Your task to perform on an android device: open chrome privacy settings Image 0: 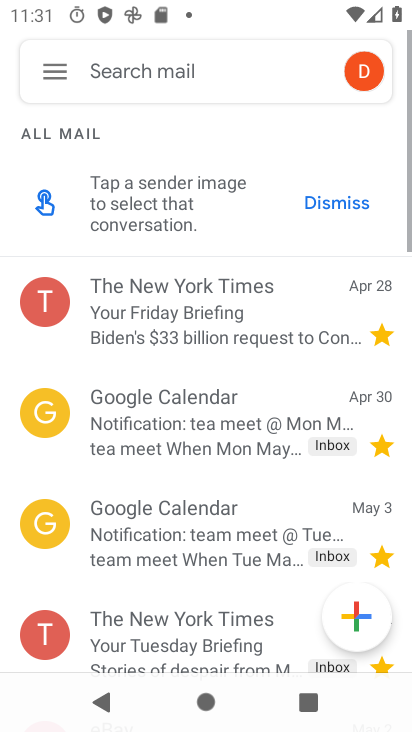
Step 0: press home button
Your task to perform on an android device: open chrome privacy settings Image 1: 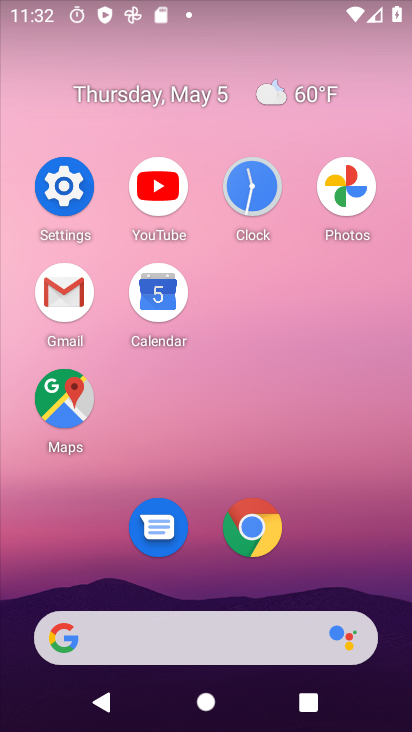
Step 1: click (267, 516)
Your task to perform on an android device: open chrome privacy settings Image 2: 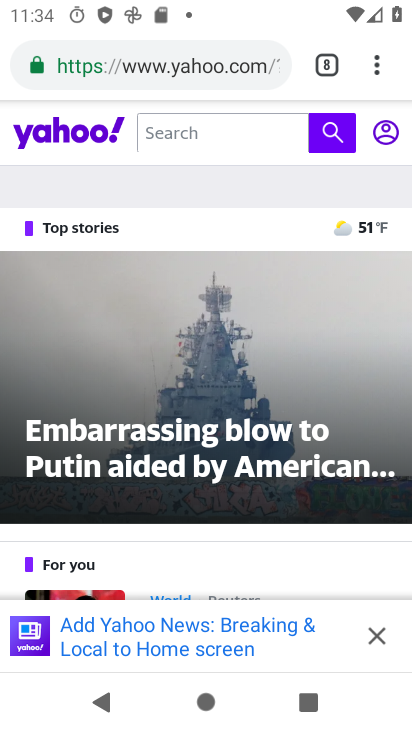
Step 2: click (375, 68)
Your task to perform on an android device: open chrome privacy settings Image 3: 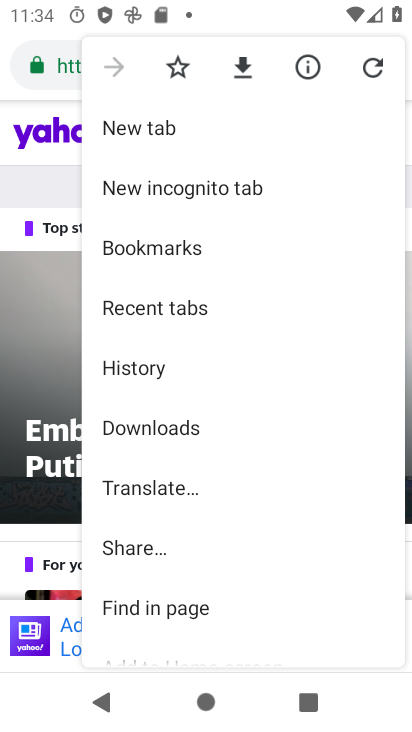
Step 3: drag from (255, 469) to (265, 218)
Your task to perform on an android device: open chrome privacy settings Image 4: 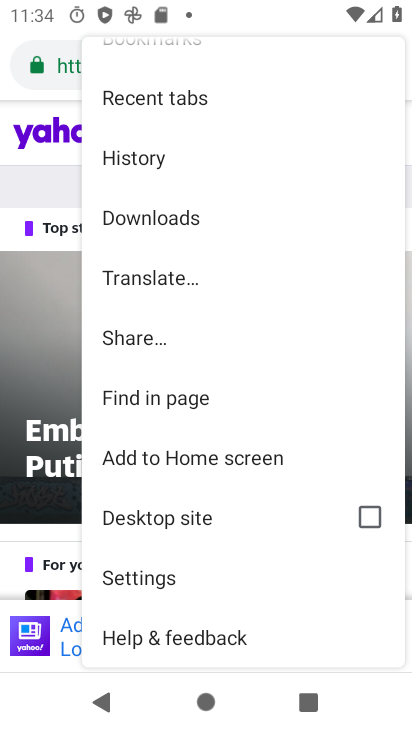
Step 4: click (213, 573)
Your task to perform on an android device: open chrome privacy settings Image 5: 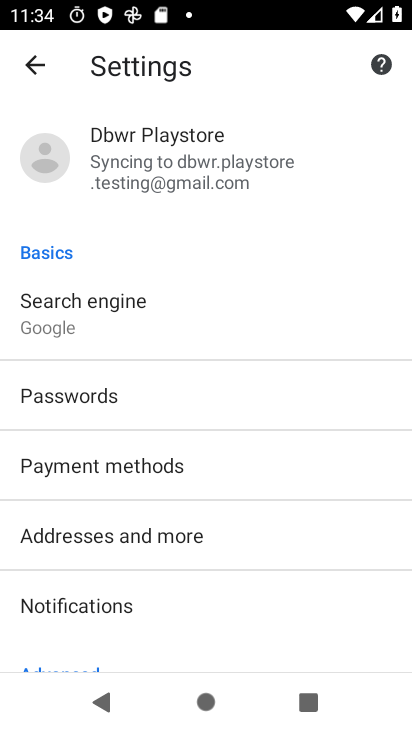
Step 5: drag from (213, 572) to (208, 184)
Your task to perform on an android device: open chrome privacy settings Image 6: 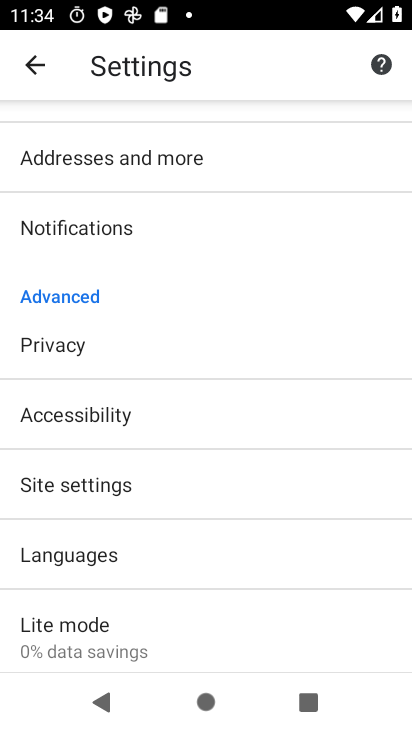
Step 6: click (155, 361)
Your task to perform on an android device: open chrome privacy settings Image 7: 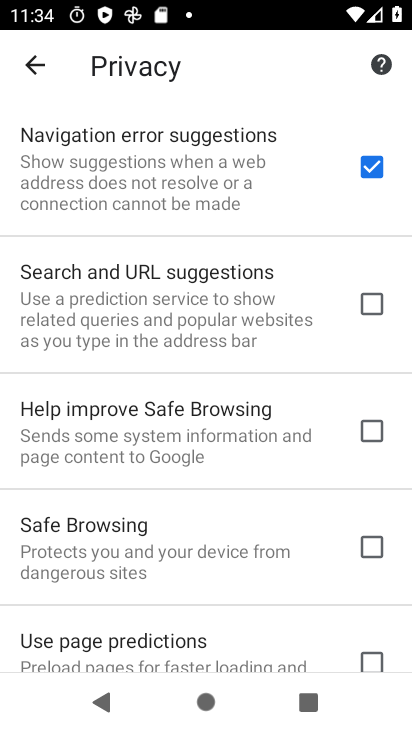
Step 7: task complete